Your task to perform on an android device: Go to network settings Image 0: 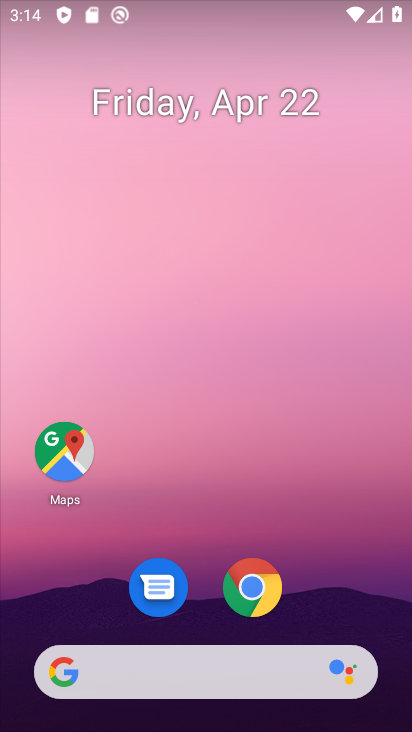
Step 0: drag from (360, 569) to (407, 24)
Your task to perform on an android device: Go to network settings Image 1: 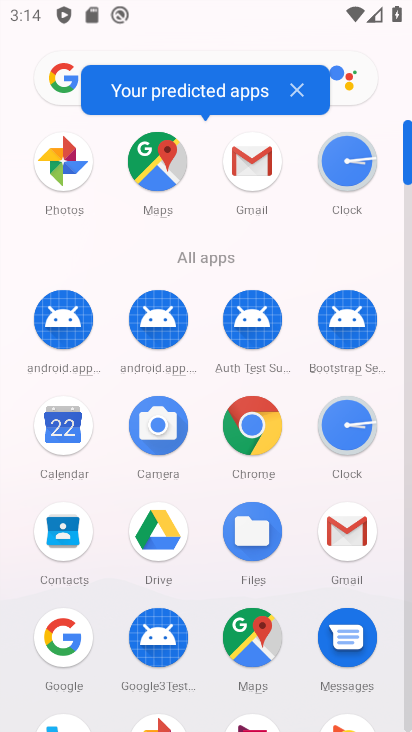
Step 1: click (408, 532)
Your task to perform on an android device: Go to network settings Image 2: 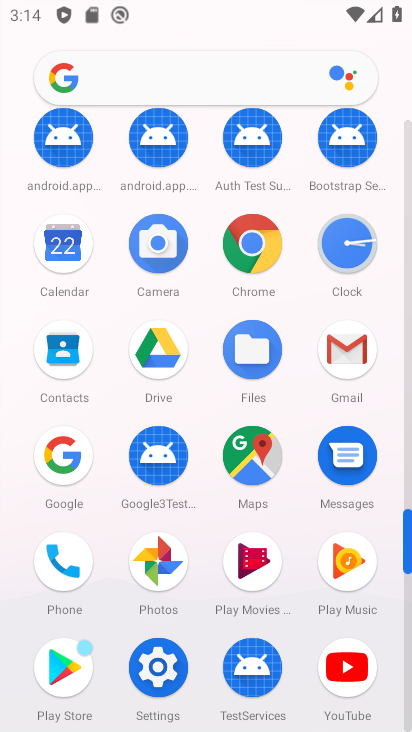
Step 2: click (157, 672)
Your task to perform on an android device: Go to network settings Image 3: 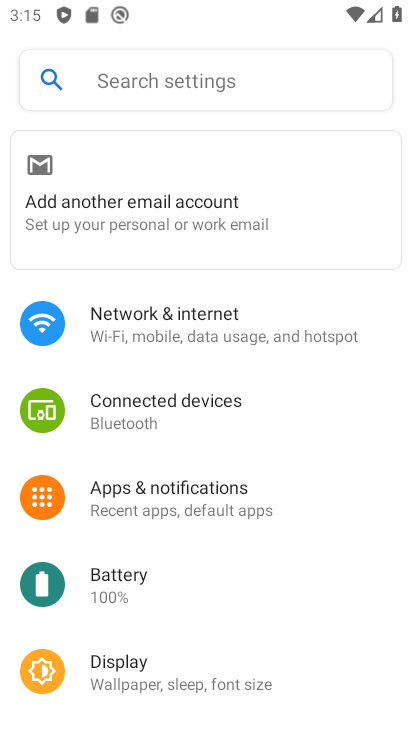
Step 3: click (162, 340)
Your task to perform on an android device: Go to network settings Image 4: 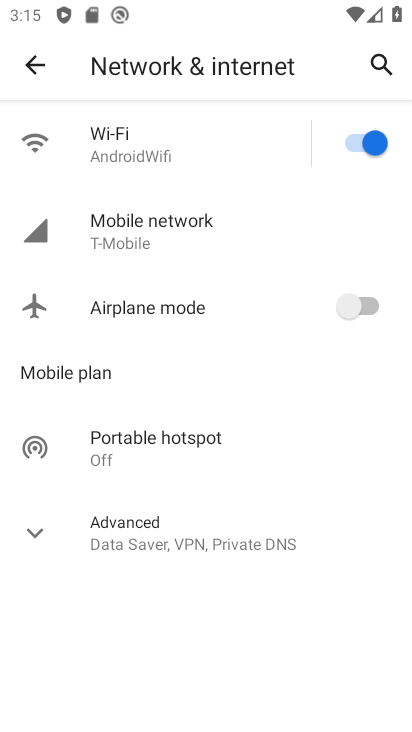
Step 4: click (146, 222)
Your task to perform on an android device: Go to network settings Image 5: 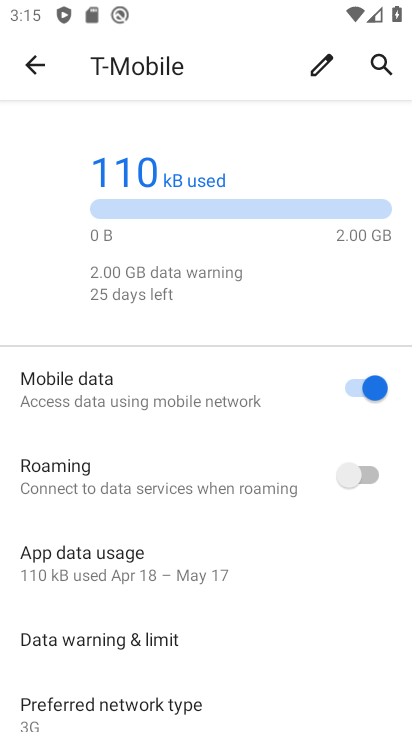
Step 5: task complete